Your task to perform on an android device: Open Reddit.com Image 0: 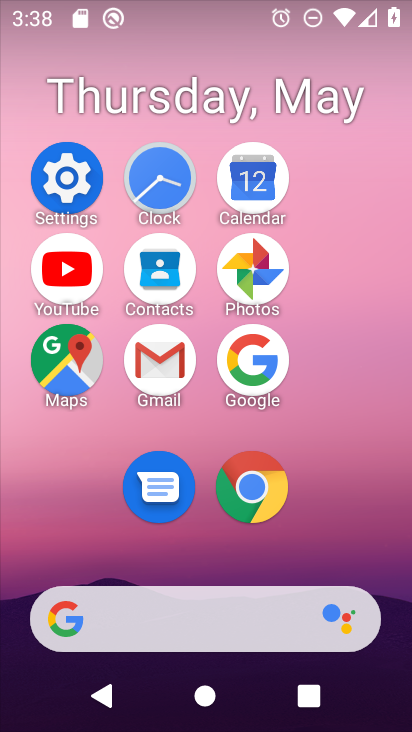
Step 0: click (279, 491)
Your task to perform on an android device: Open Reddit.com Image 1: 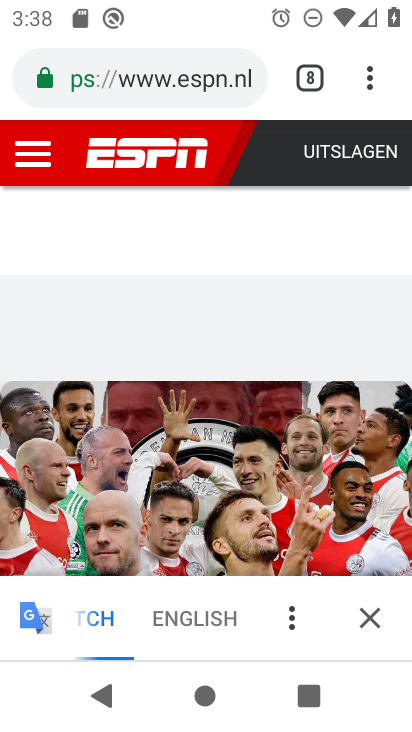
Step 1: click (321, 67)
Your task to perform on an android device: Open Reddit.com Image 2: 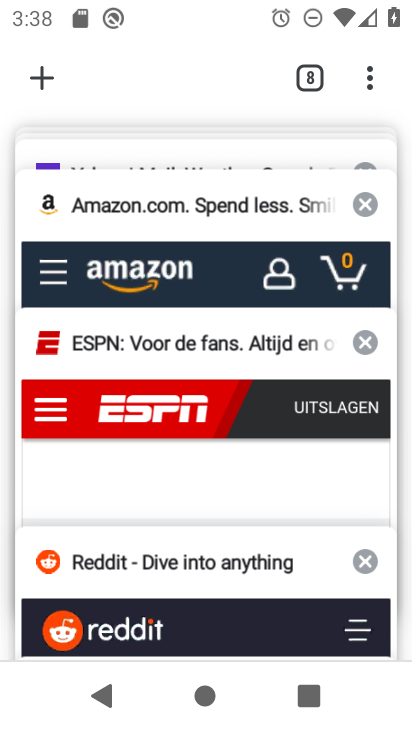
Step 2: drag from (211, 476) to (206, 168)
Your task to perform on an android device: Open Reddit.com Image 3: 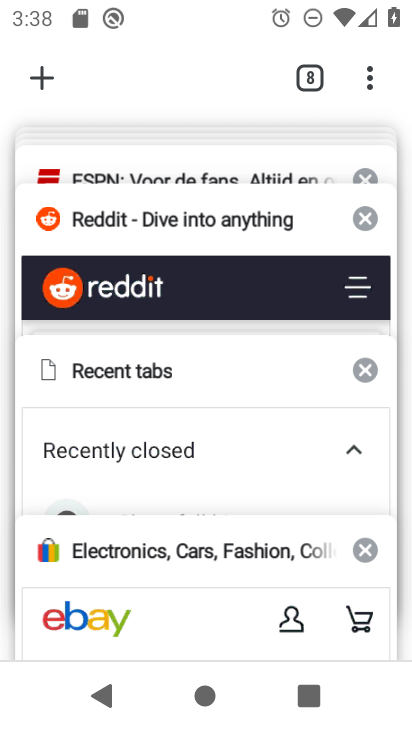
Step 3: click (193, 313)
Your task to perform on an android device: Open Reddit.com Image 4: 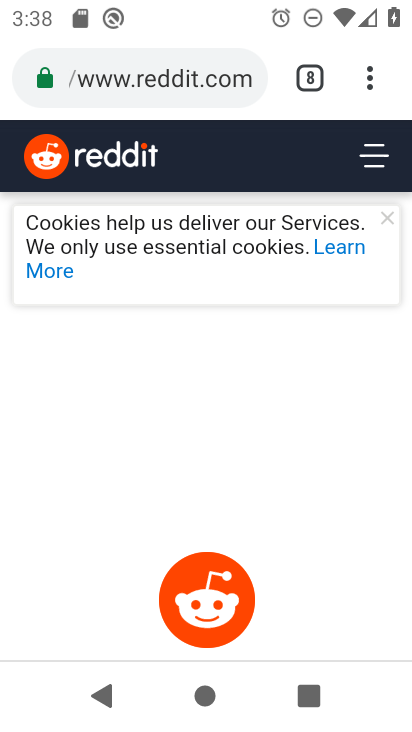
Step 4: task complete